Your task to perform on an android device: Open eBay Image 0: 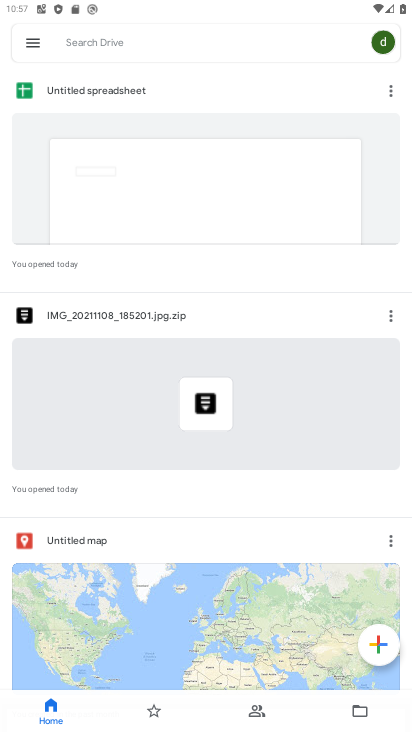
Step 0: press home button
Your task to perform on an android device: Open eBay Image 1: 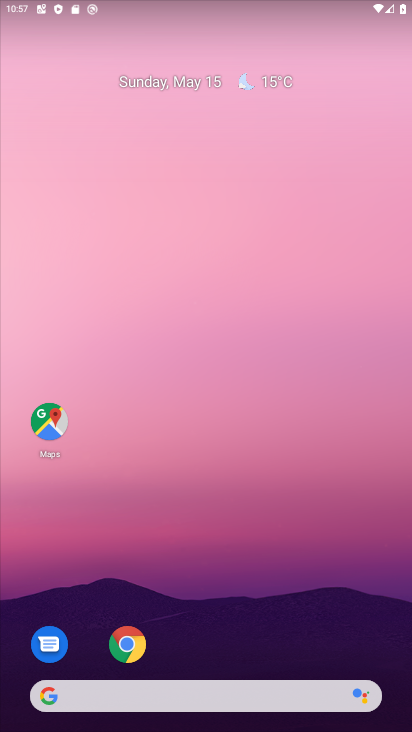
Step 1: click (124, 634)
Your task to perform on an android device: Open eBay Image 2: 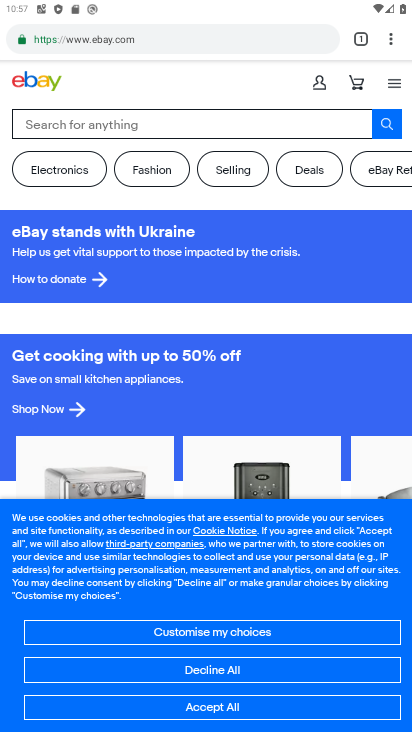
Step 2: click (291, 37)
Your task to perform on an android device: Open eBay Image 3: 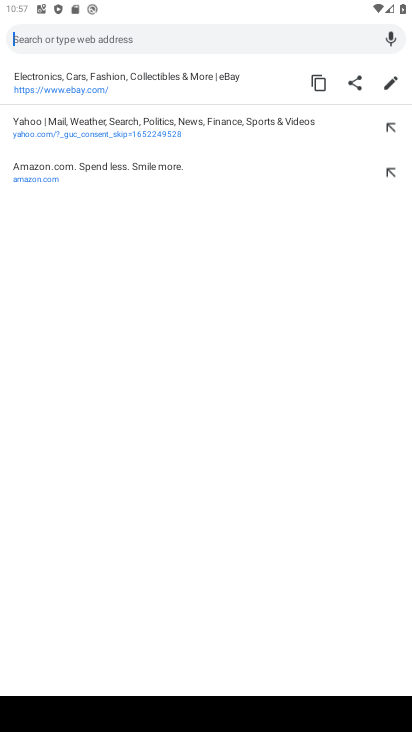
Step 3: task complete